Your task to perform on an android device: Open Chrome and go to settings Image 0: 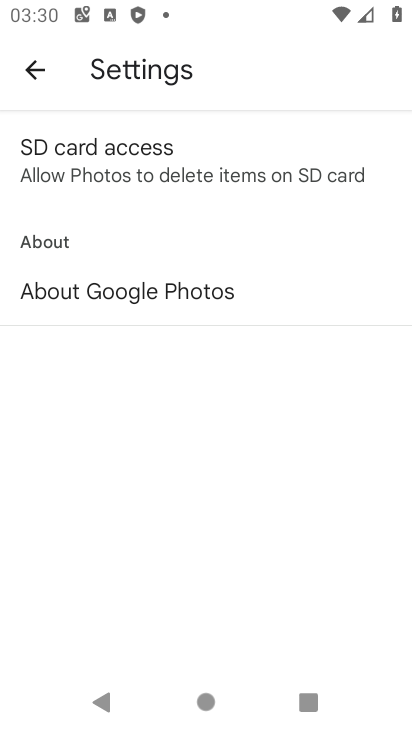
Step 0: press home button
Your task to perform on an android device: Open Chrome and go to settings Image 1: 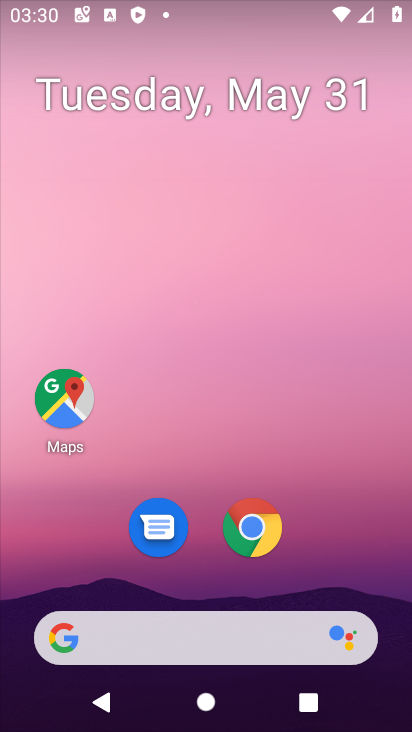
Step 1: click (255, 531)
Your task to perform on an android device: Open Chrome and go to settings Image 2: 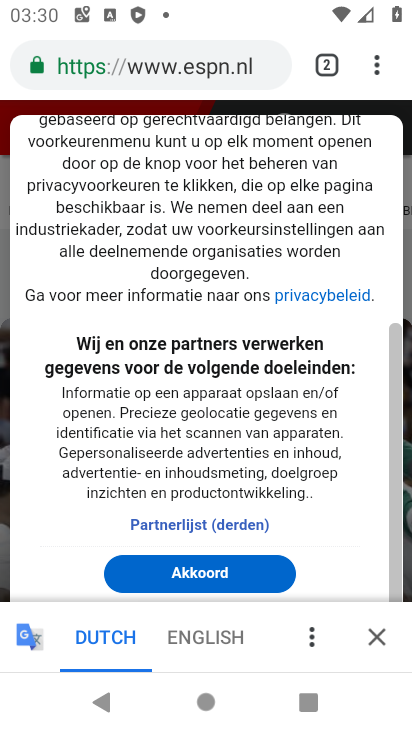
Step 2: click (372, 68)
Your task to perform on an android device: Open Chrome and go to settings Image 3: 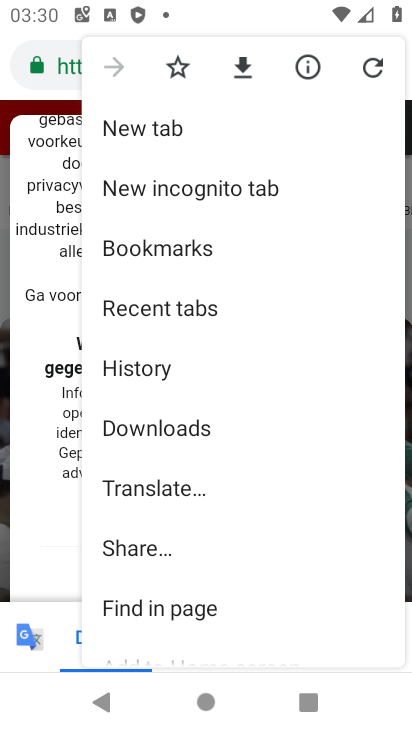
Step 3: drag from (262, 589) to (297, 241)
Your task to perform on an android device: Open Chrome and go to settings Image 4: 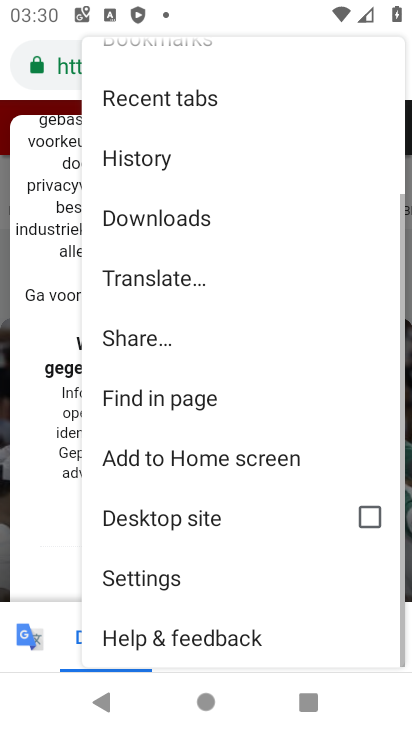
Step 4: click (163, 574)
Your task to perform on an android device: Open Chrome and go to settings Image 5: 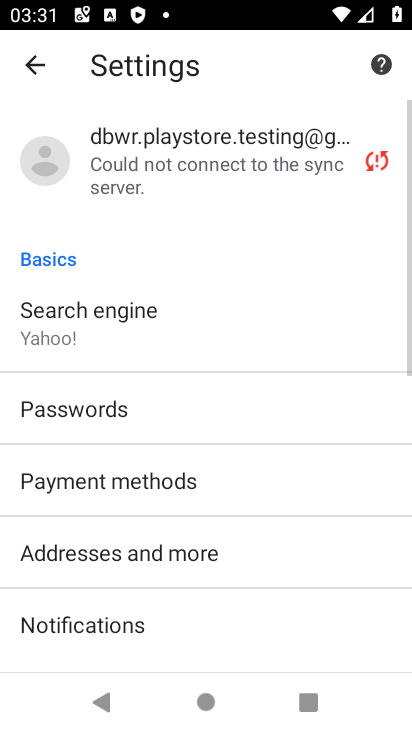
Step 5: task complete